Your task to perform on an android device: Open Google Chrome Image 0: 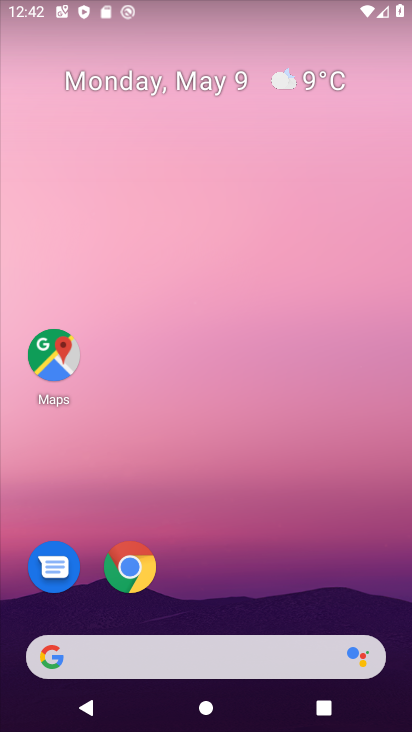
Step 0: drag from (255, 681) to (275, 299)
Your task to perform on an android device: Open Google Chrome Image 1: 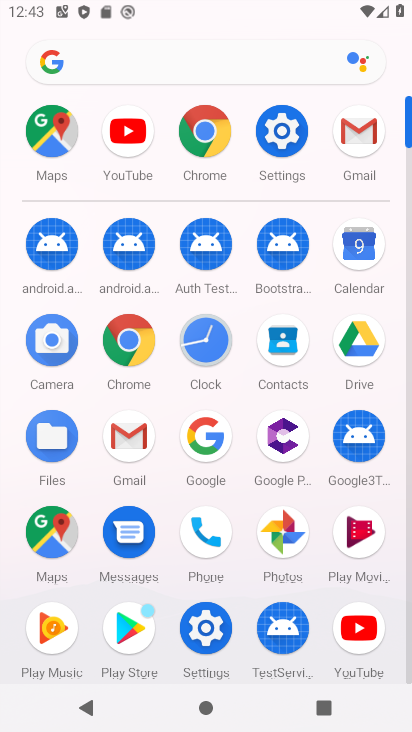
Step 1: click (210, 132)
Your task to perform on an android device: Open Google Chrome Image 2: 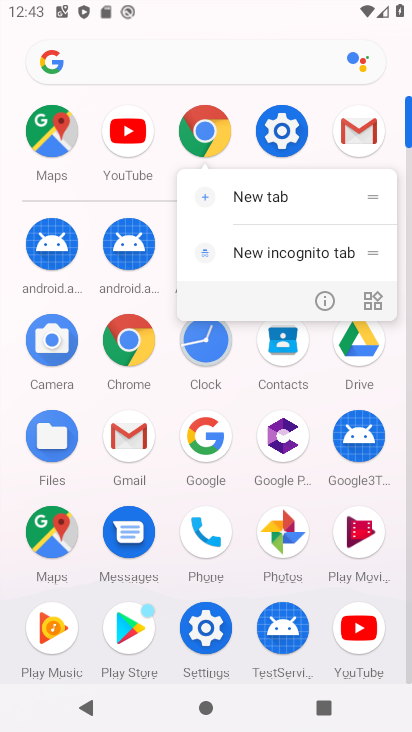
Step 2: click (201, 136)
Your task to perform on an android device: Open Google Chrome Image 3: 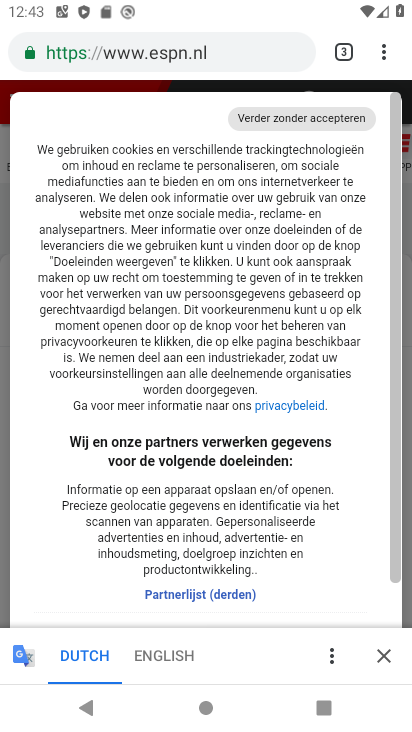
Step 3: click (342, 49)
Your task to perform on an android device: Open Google Chrome Image 4: 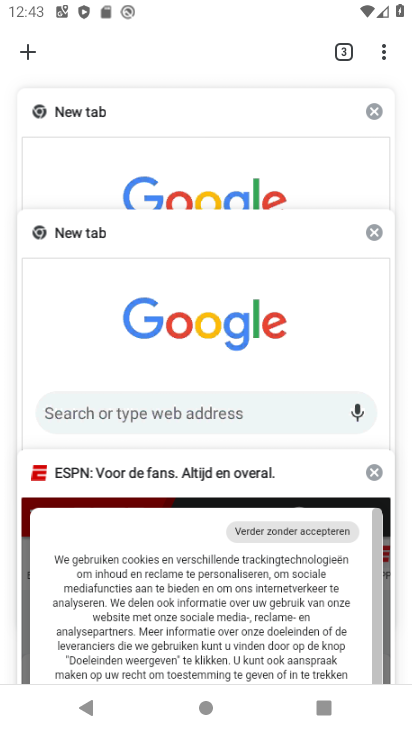
Step 4: click (29, 54)
Your task to perform on an android device: Open Google Chrome Image 5: 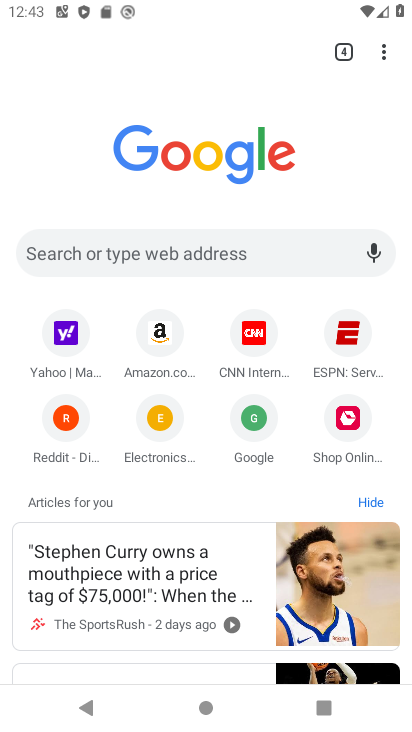
Step 5: task complete